Your task to perform on an android device: Show me the alarms in the clock app Image 0: 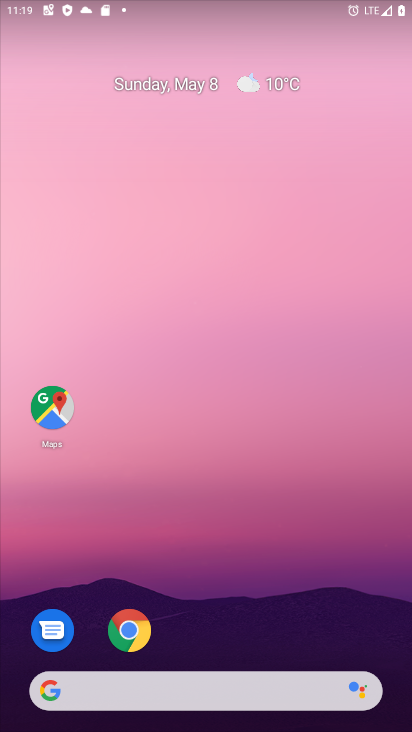
Step 0: drag from (376, 644) to (307, 58)
Your task to perform on an android device: Show me the alarms in the clock app Image 1: 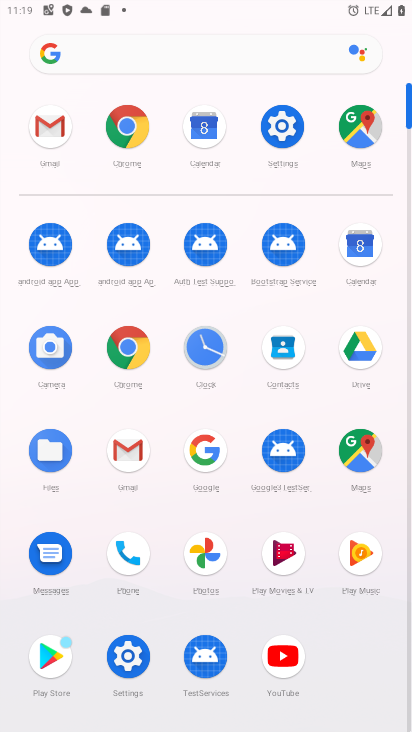
Step 1: click (206, 335)
Your task to perform on an android device: Show me the alarms in the clock app Image 2: 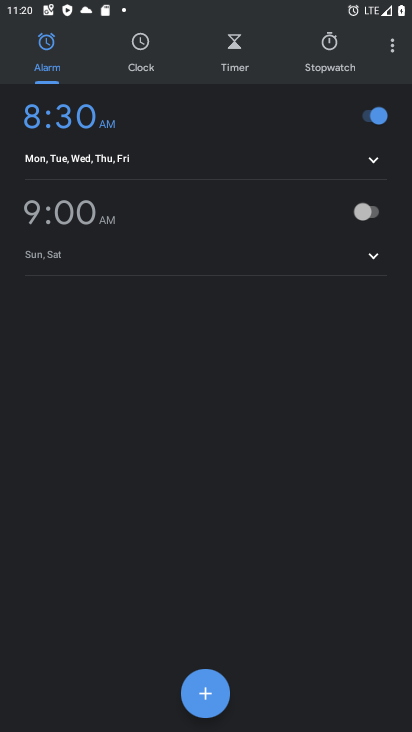
Step 2: task complete